Your task to perform on an android device: Go to accessibility settings Image 0: 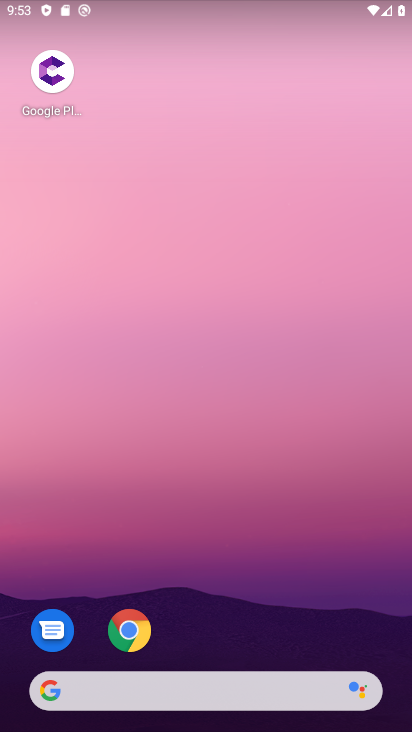
Step 0: drag from (353, 548) to (270, 65)
Your task to perform on an android device: Go to accessibility settings Image 1: 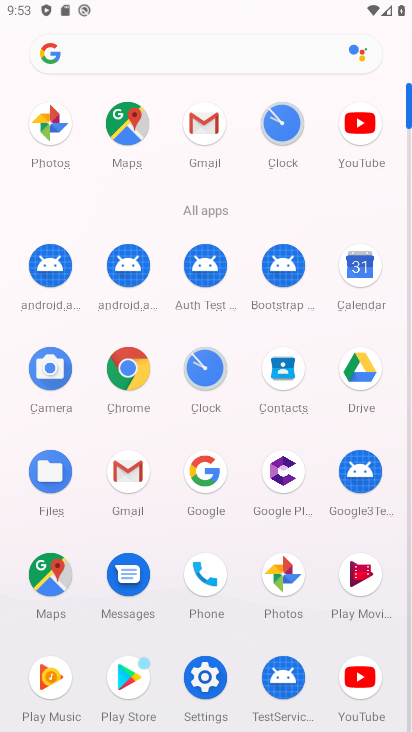
Step 1: click (206, 680)
Your task to perform on an android device: Go to accessibility settings Image 2: 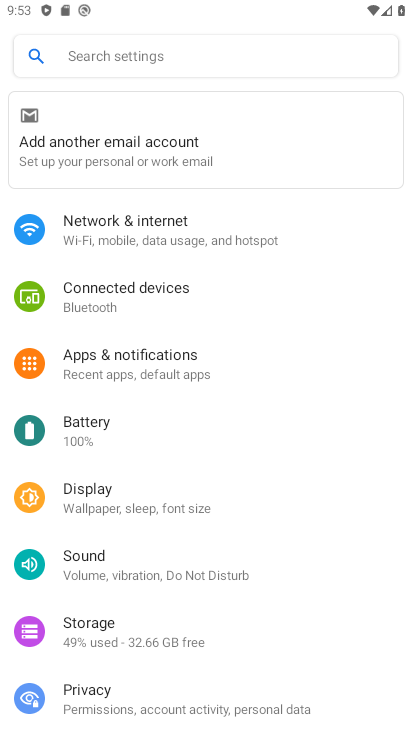
Step 2: drag from (332, 680) to (297, 276)
Your task to perform on an android device: Go to accessibility settings Image 3: 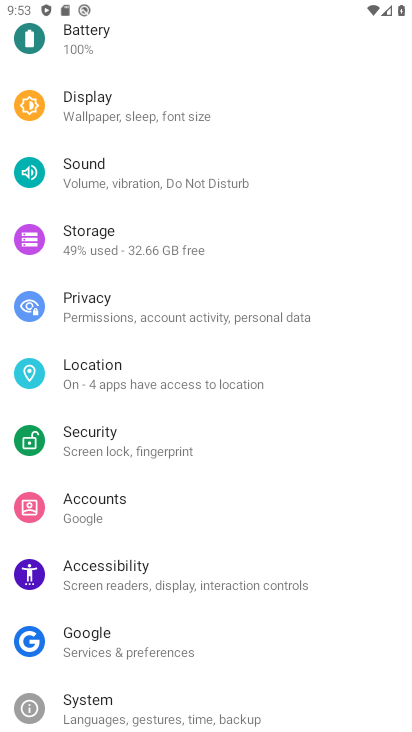
Step 3: click (137, 573)
Your task to perform on an android device: Go to accessibility settings Image 4: 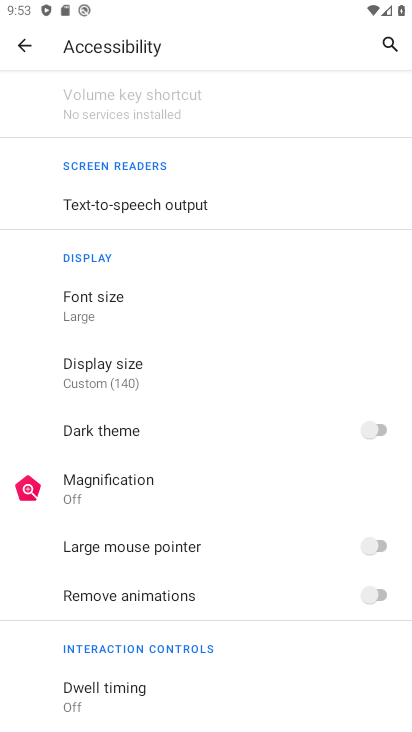
Step 4: task complete